Your task to perform on an android device: Open calendar and show me the third week of next month Image 0: 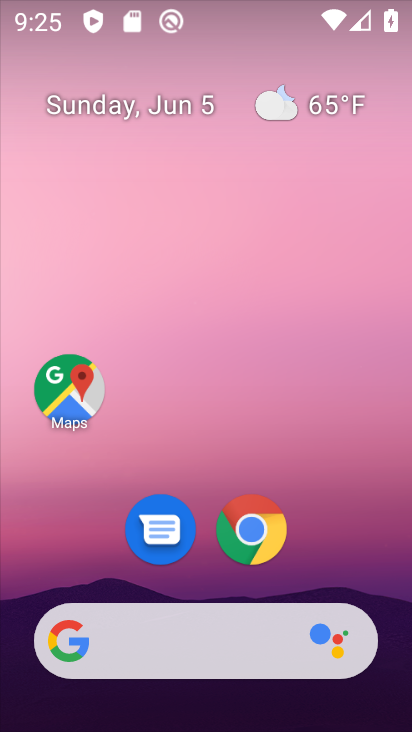
Step 0: drag from (197, 711) to (204, 53)
Your task to perform on an android device: Open calendar and show me the third week of next month Image 1: 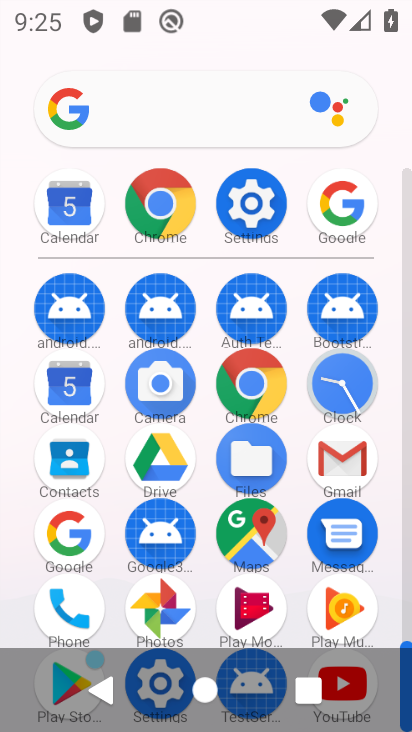
Step 1: click (58, 409)
Your task to perform on an android device: Open calendar and show me the third week of next month Image 2: 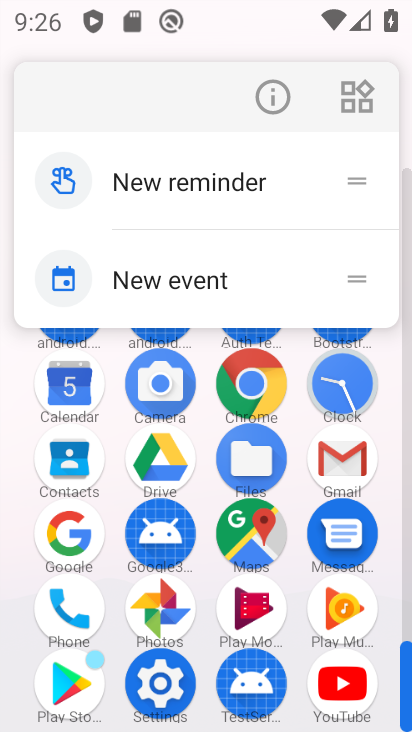
Step 2: click (57, 383)
Your task to perform on an android device: Open calendar and show me the third week of next month Image 3: 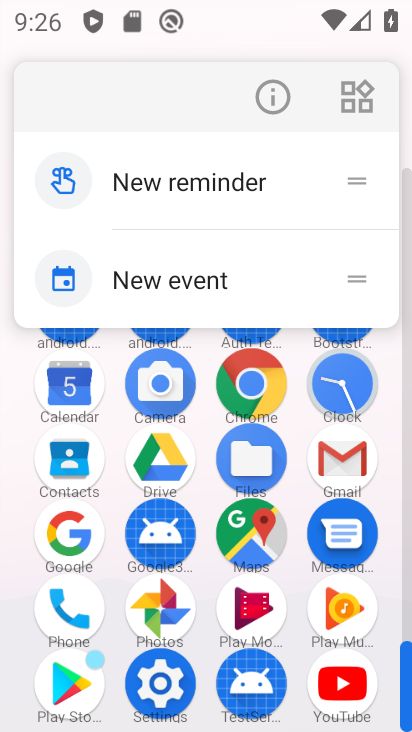
Step 3: click (57, 383)
Your task to perform on an android device: Open calendar and show me the third week of next month Image 4: 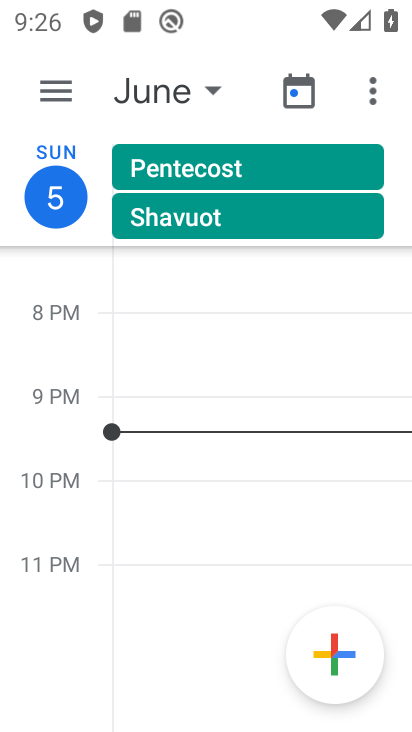
Step 4: click (162, 94)
Your task to perform on an android device: Open calendar and show me the third week of next month Image 5: 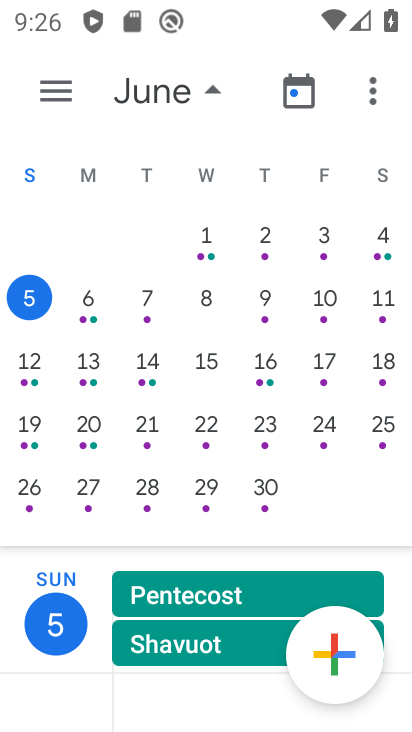
Step 5: drag from (349, 352) to (33, 360)
Your task to perform on an android device: Open calendar and show me the third week of next month Image 6: 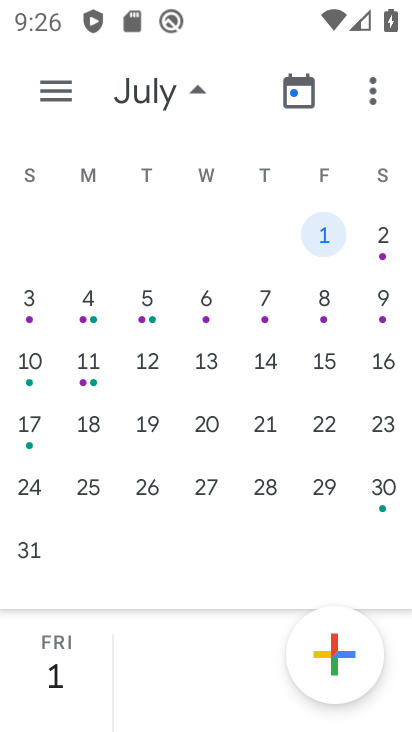
Step 6: click (8, 370)
Your task to perform on an android device: Open calendar and show me the third week of next month Image 7: 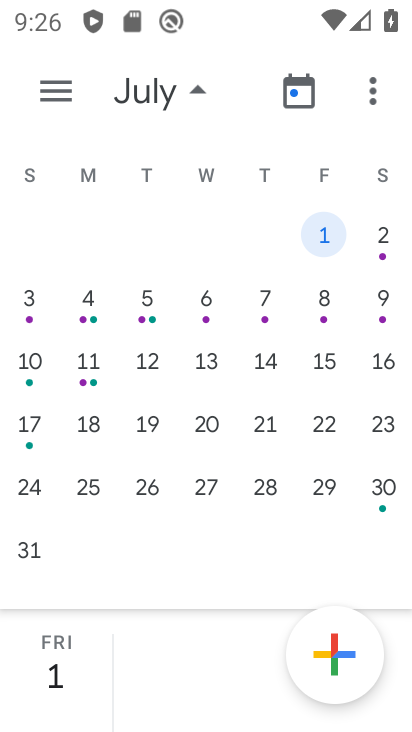
Step 7: click (31, 373)
Your task to perform on an android device: Open calendar and show me the third week of next month Image 8: 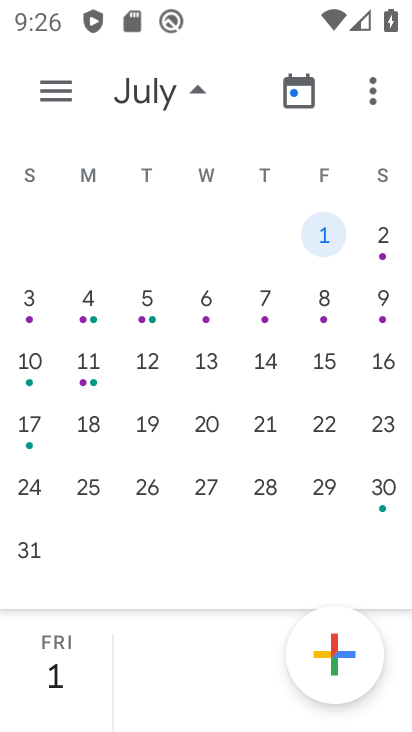
Step 8: click (33, 363)
Your task to perform on an android device: Open calendar and show me the third week of next month Image 9: 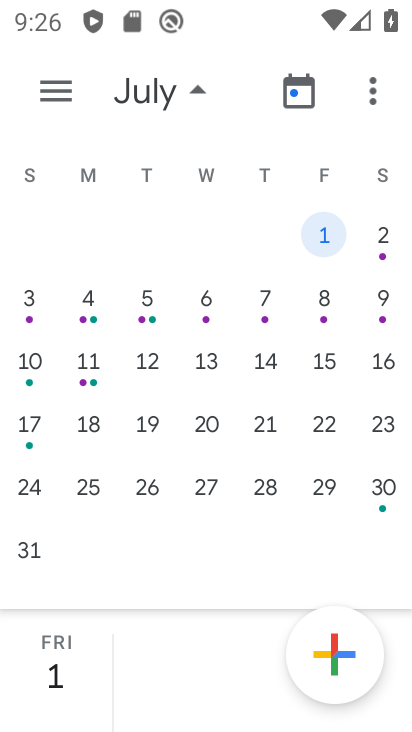
Step 9: click (33, 356)
Your task to perform on an android device: Open calendar and show me the third week of next month Image 10: 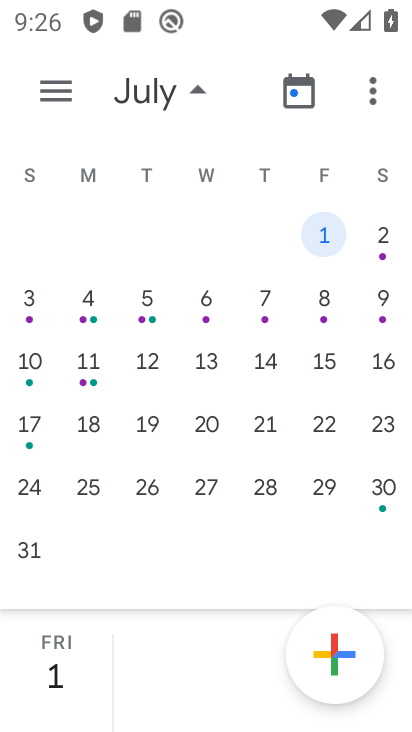
Step 10: click (40, 368)
Your task to perform on an android device: Open calendar and show me the third week of next month Image 11: 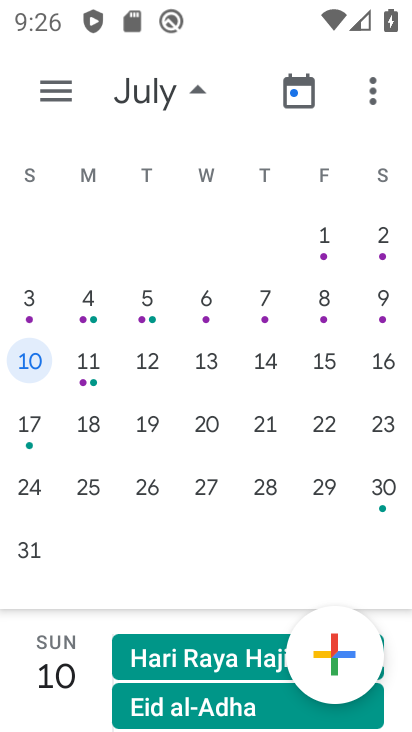
Step 11: task complete